Your task to perform on an android device: remove spam from my inbox in the gmail app Image 0: 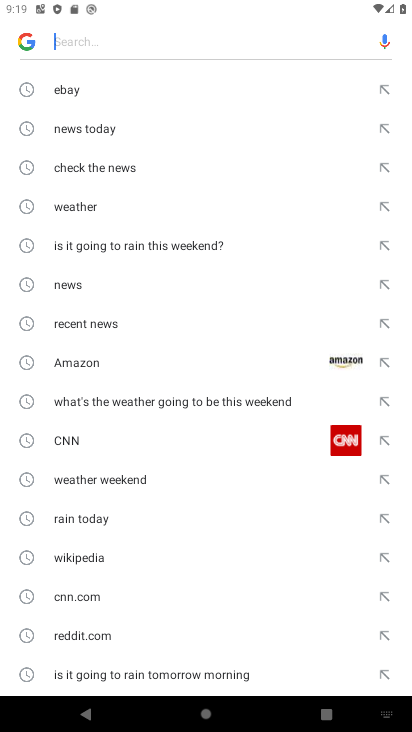
Step 0: press home button
Your task to perform on an android device: remove spam from my inbox in the gmail app Image 1: 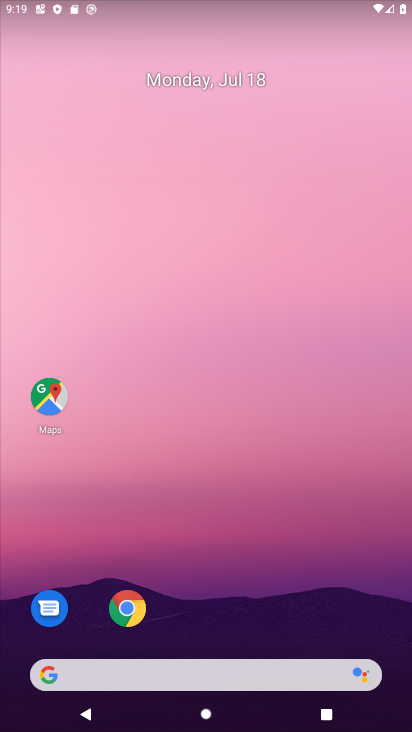
Step 1: drag from (194, 610) to (153, 32)
Your task to perform on an android device: remove spam from my inbox in the gmail app Image 2: 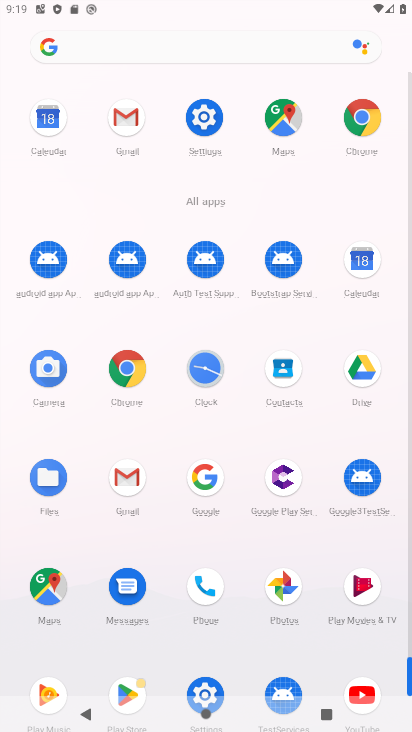
Step 2: click (126, 488)
Your task to perform on an android device: remove spam from my inbox in the gmail app Image 3: 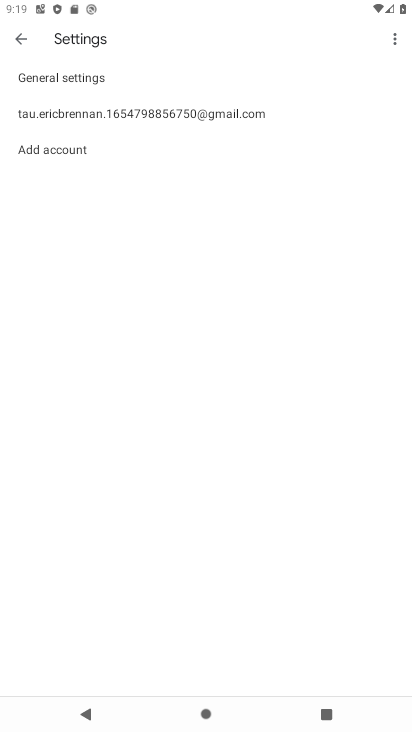
Step 3: click (20, 29)
Your task to perform on an android device: remove spam from my inbox in the gmail app Image 4: 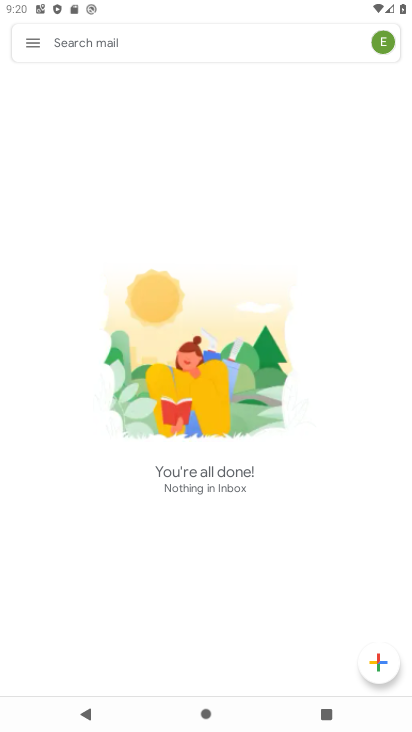
Step 4: click (32, 41)
Your task to perform on an android device: remove spam from my inbox in the gmail app Image 5: 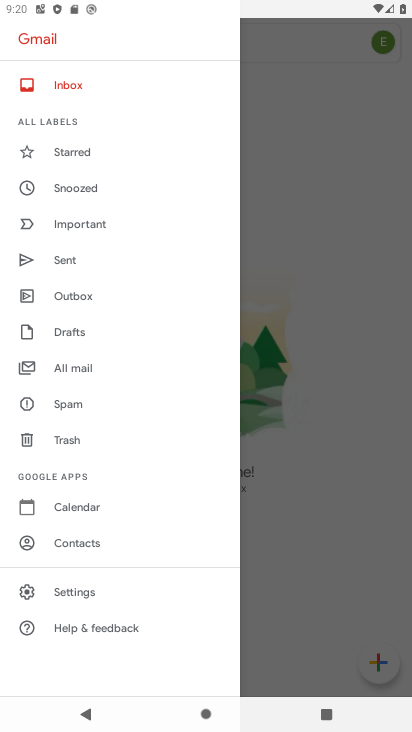
Step 5: click (78, 402)
Your task to perform on an android device: remove spam from my inbox in the gmail app Image 6: 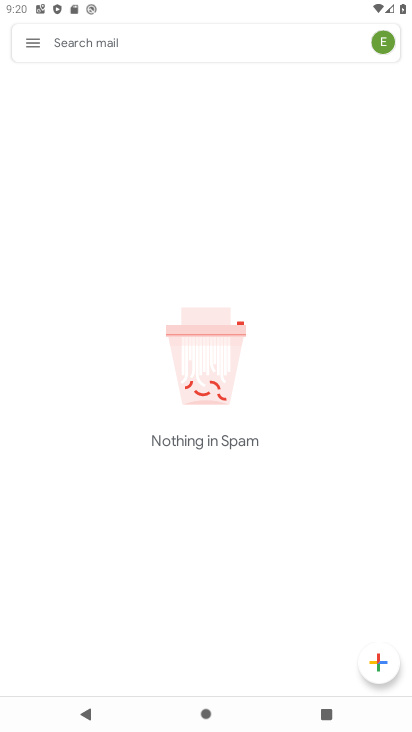
Step 6: task complete